Your task to perform on an android device: toggle wifi Image 0: 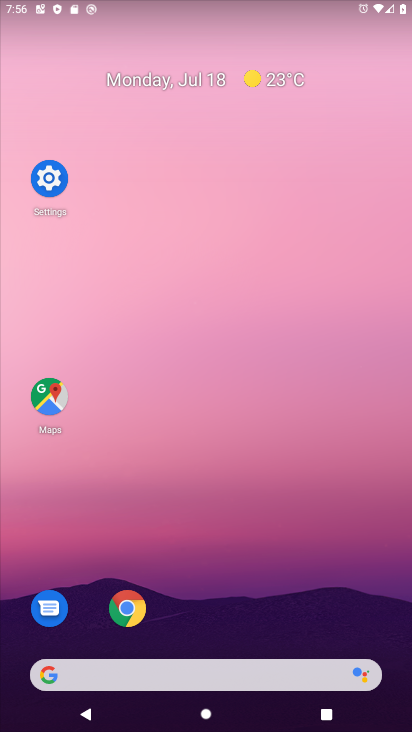
Step 0: click (41, 173)
Your task to perform on an android device: toggle wifi Image 1: 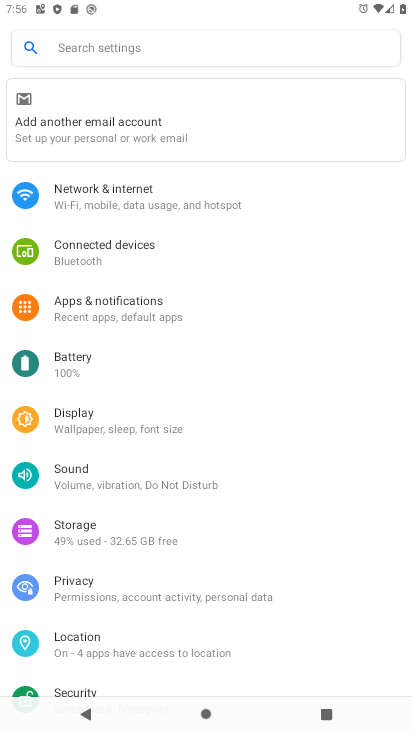
Step 1: click (109, 193)
Your task to perform on an android device: toggle wifi Image 2: 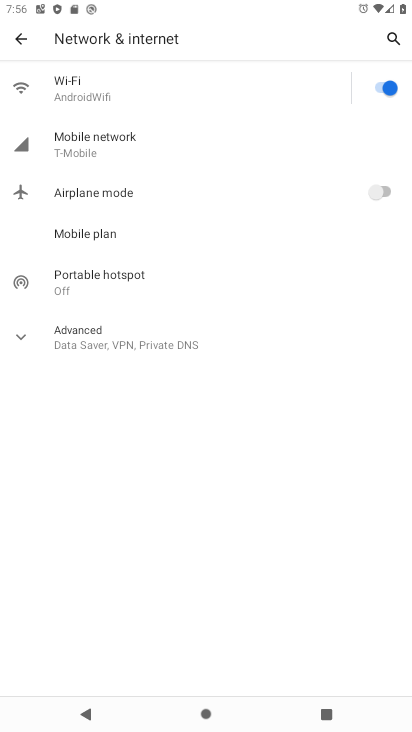
Step 2: click (153, 63)
Your task to perform on an android device: toggle wifi Image 3: 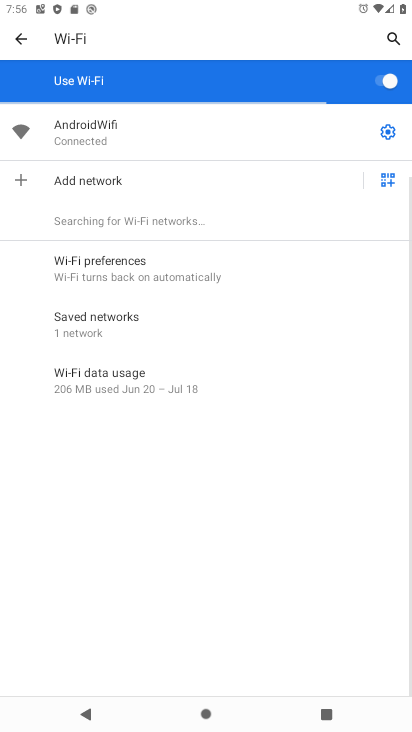
Step 3: click (378, 83)
Your task to perform on an android device: toggle wifi Image 4: 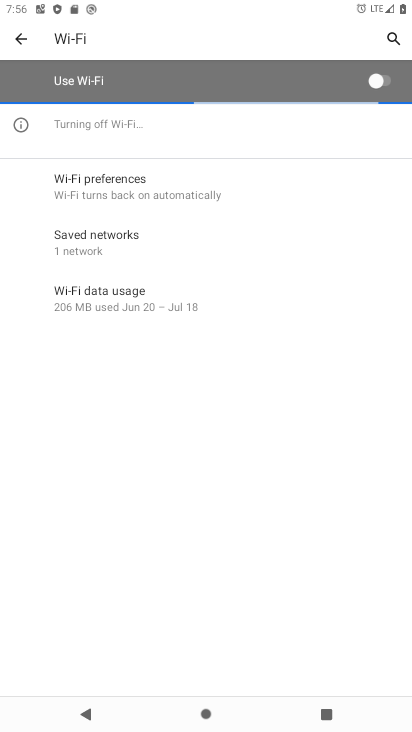
Step 4: task complete